Your task to perform on an android device: turn on data saver in the chrome app Image 0: 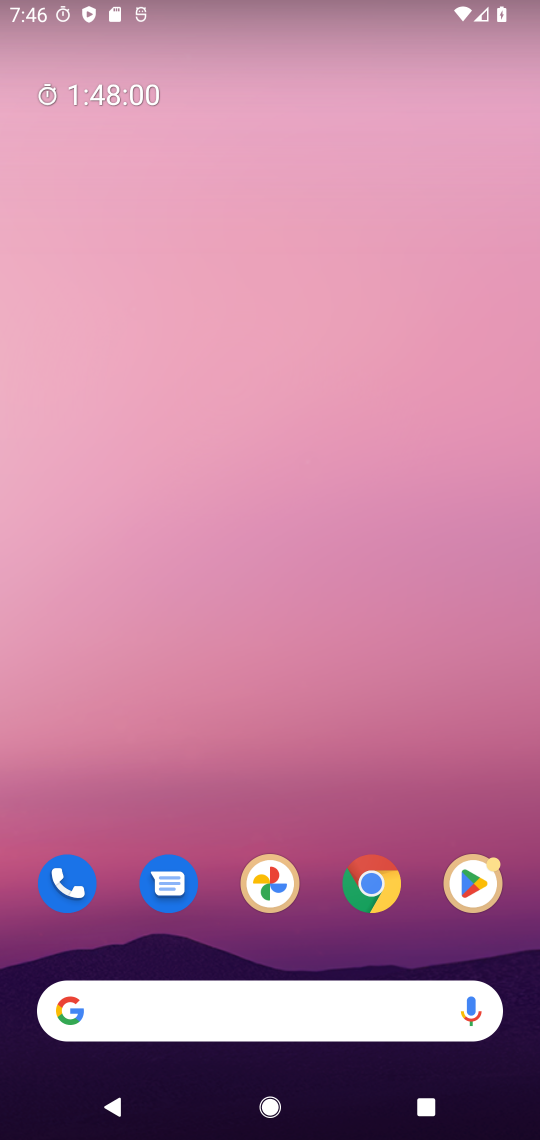
Step 0: click (379, 880)
Your task to perform on an android device: turn on data saver in the chrome app Image 1: 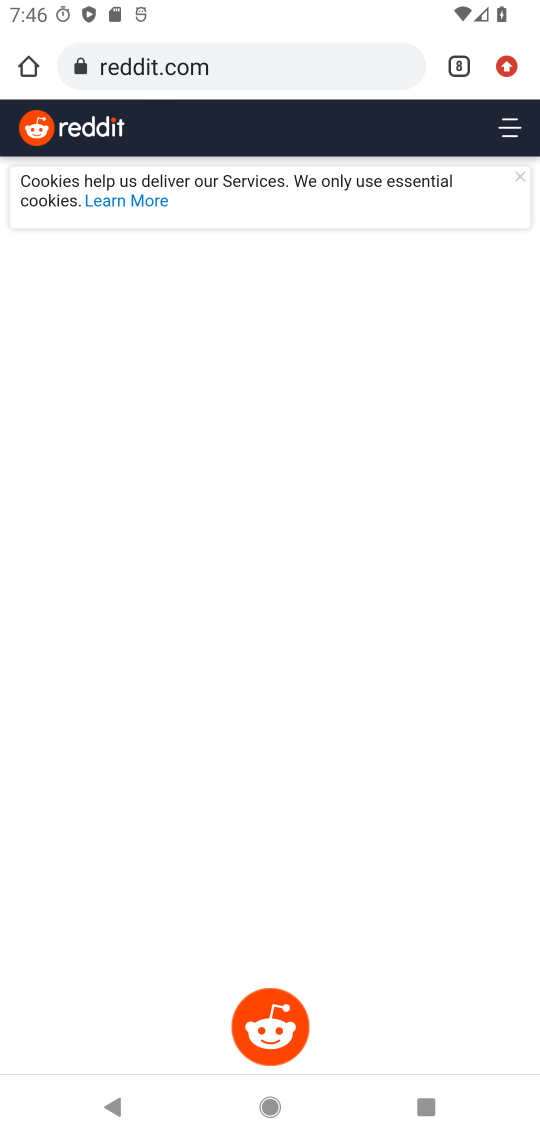
Step 1: click (502, 61)
Your task to perform on an android device: turn on data saver in the chrome app Image 2: 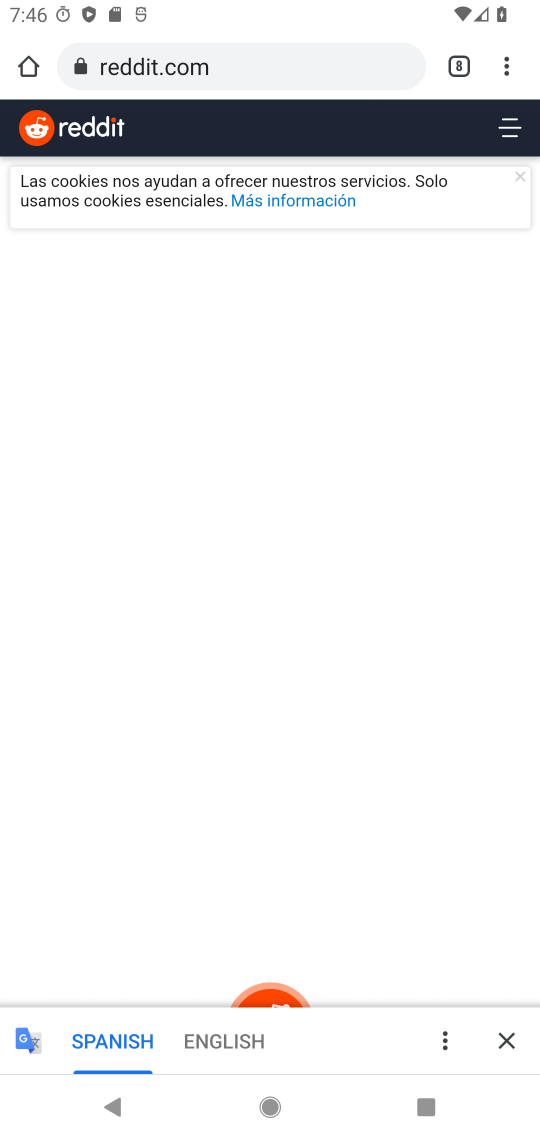
Step 2: click (502, 63)
Your task to perform on an android device: turn on data saver in the chrome app Image 3: 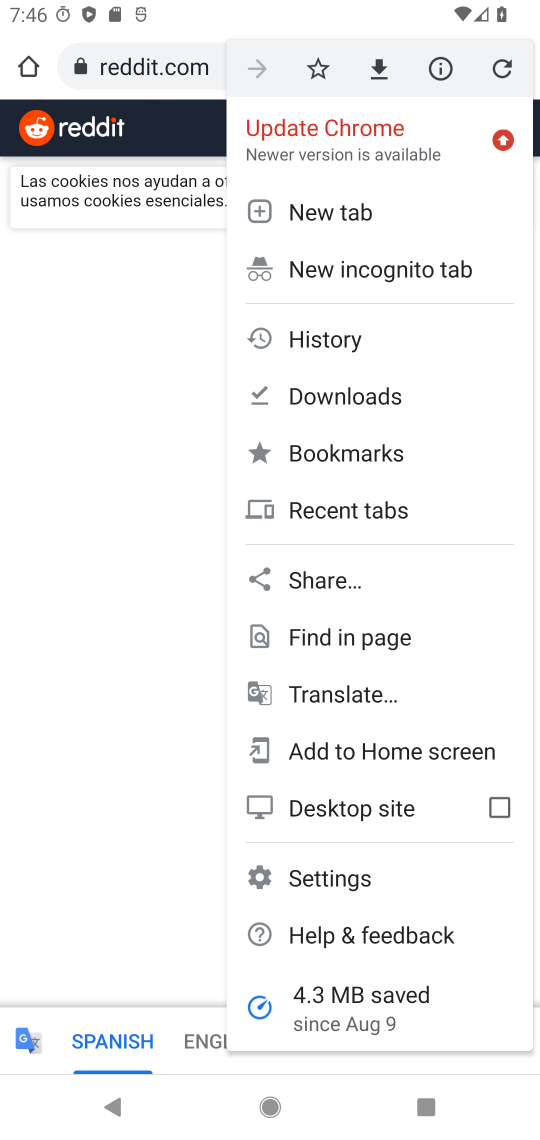
Step 3: click (311, 859)
Your task to perform on an android device: turn on data saver in the chrome app Image 4: 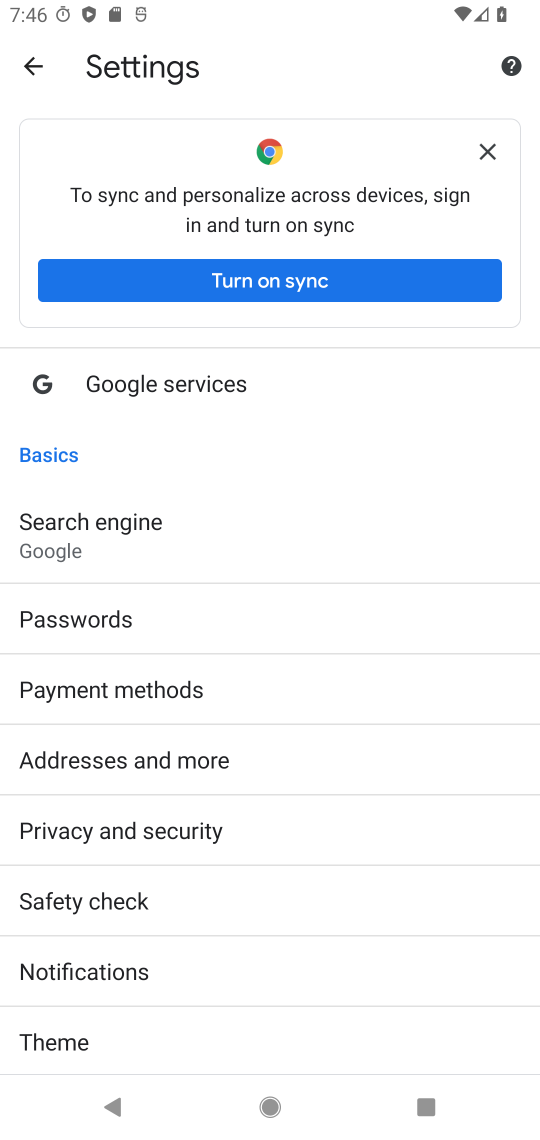
Step 4: drag from (244, 971) to (240, 383)
Your task to perform on an android device: turn on data saver in the chrome app Image 5: 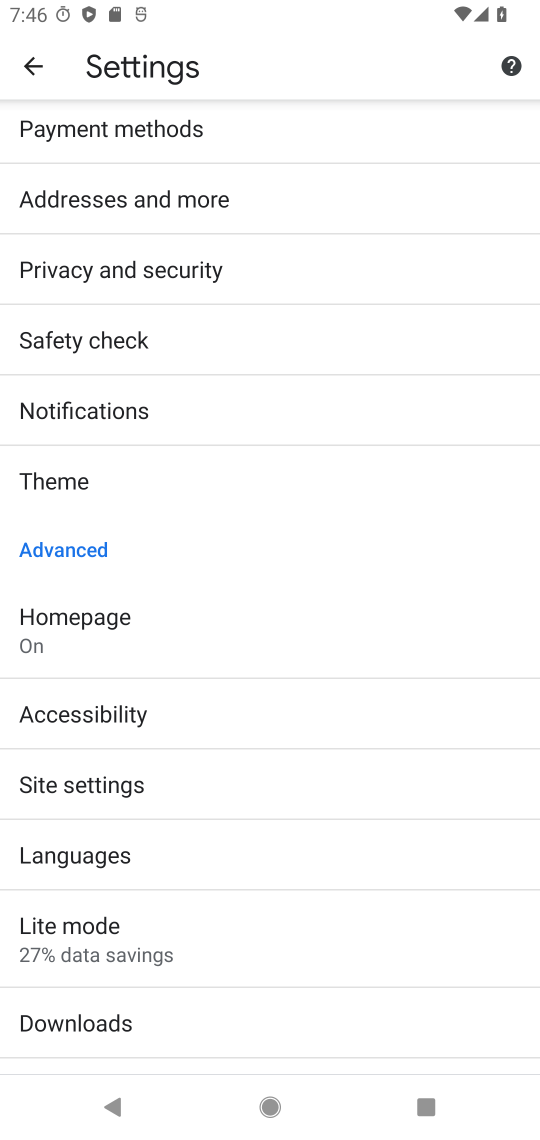
Step 5: click (125, 916)
Your task to perform on an android device: turn on data saver in the chrome app Image 6: 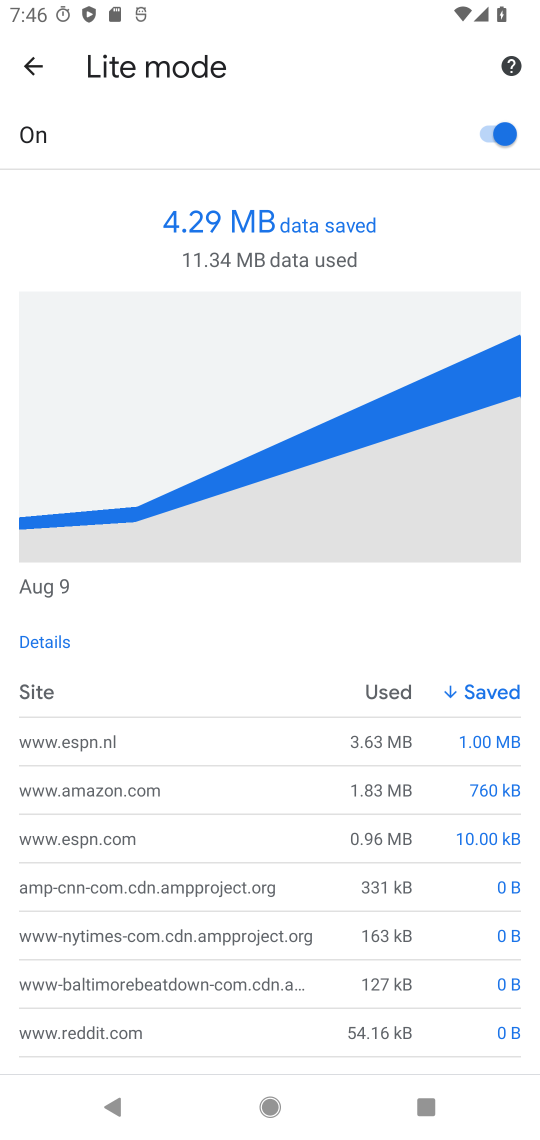
Step 6: task complete